Your task to perform on an android device: Open the calendar and show me this week's events Image 0: 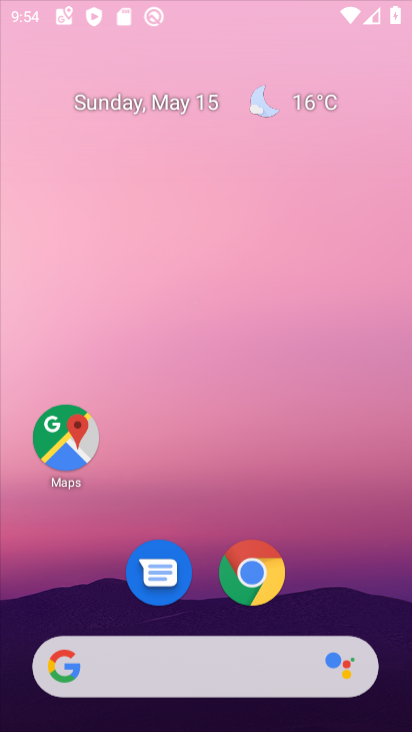
Step 0: press home button
Your task to perform on an android device: Open the calendar and show me this week's events Image 1: 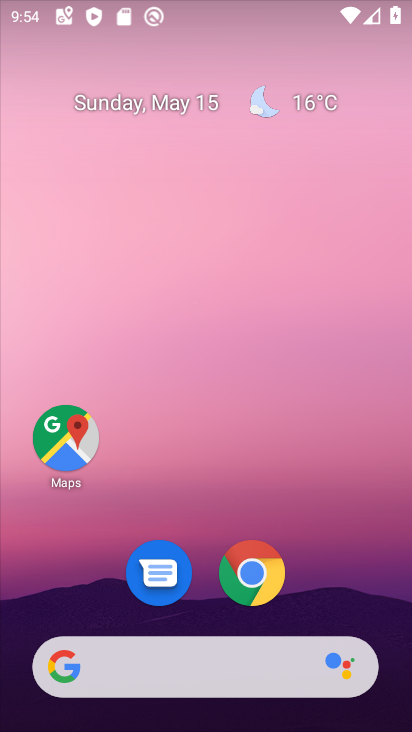
Step 1: drag from (325, 561) to (310, 66)
Your task to perform on an android device: Open the calendar and show me this week's events Image 2: 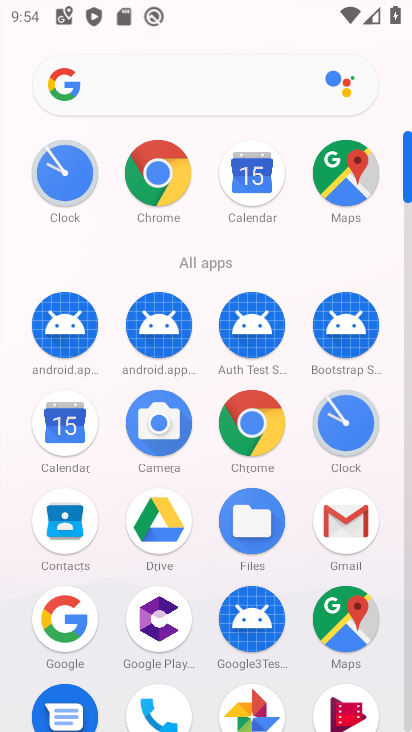
Step 2: click (62, 439)
Your task to perform on an android device: Open the calendar and show me this week's events Image 3: 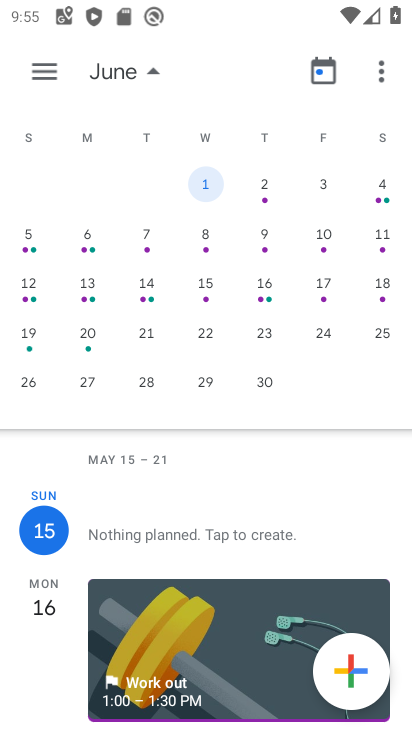
Step 3: drag from (59, 190) to (403, 215)
Your task to perform on an android device: Open the calendar and show me this week's events Image 4: 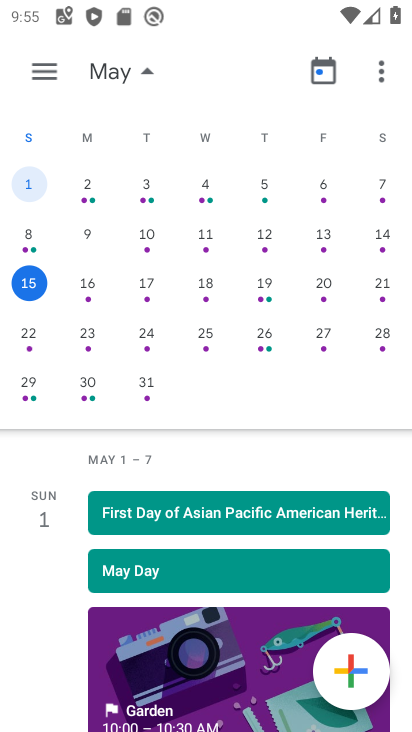
Step 4: click (30, 279)
Your task to perform on an android device: Open the calendar and show me this week's events Image 5: 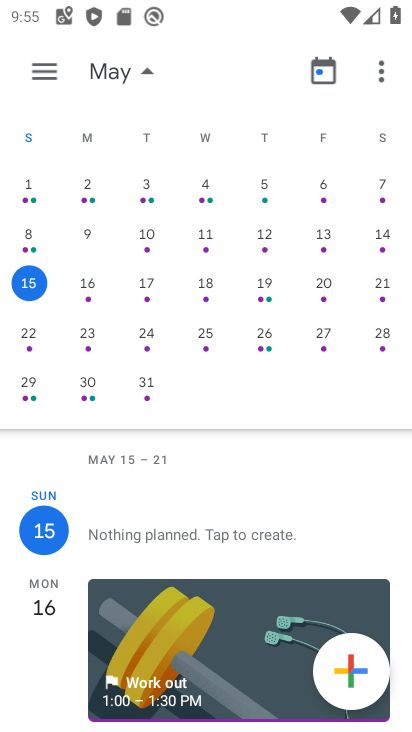
Step 5: click (111, 71)
Your task to perform on an android device: Open the calendar and show me this week's events Image 6: 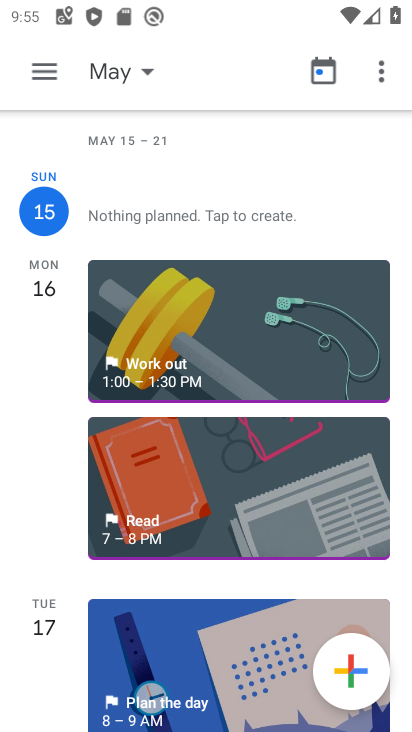
Step 6: task complete